Your task to perform on an android device: check storage Image 0: 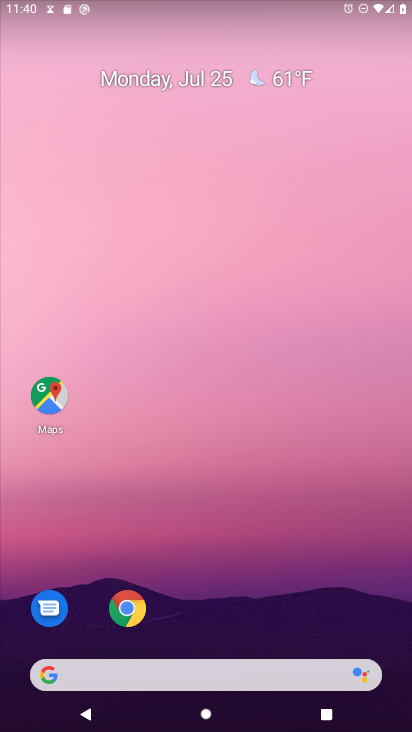
Step 0: drag from (204, 674) to (294, 30)
Your task to perform on an android device: check storage Image 1: 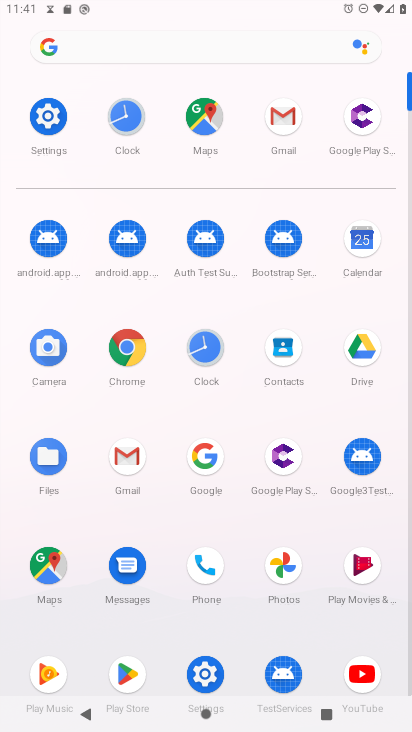
Step 1: click (49, 115)
Your task to perform on an android device: check storage Image 2: 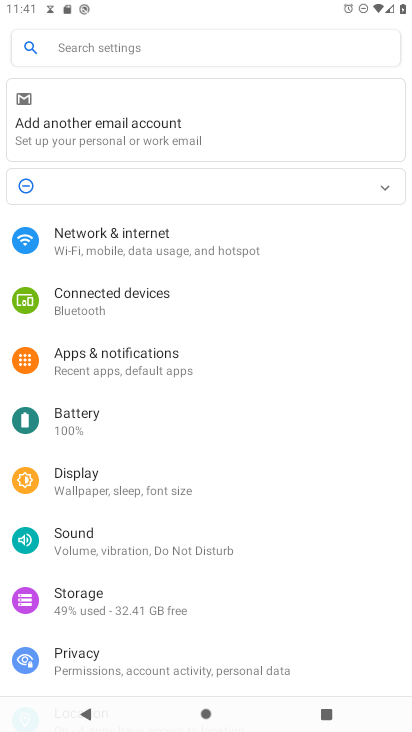
Step 2: click (66, 603)
Your task to perform on an android device: check storage Image 3: 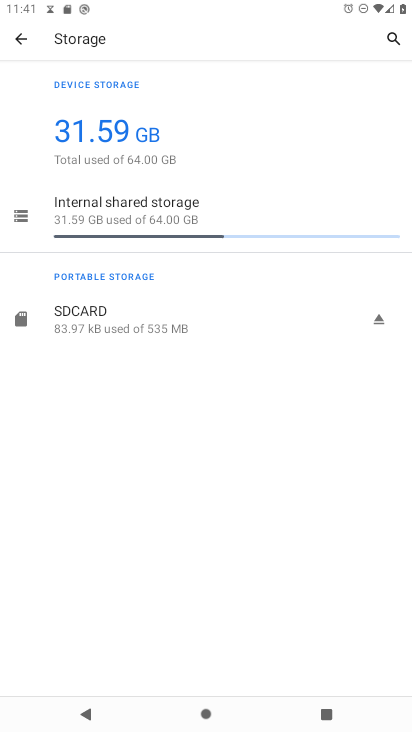
Step 3: task complete